Your task to perform on an android device: turn off notifications settings in the gmail app Image 0: 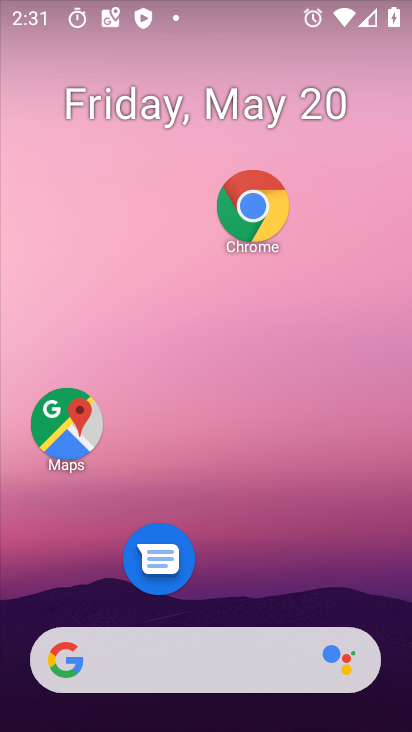
Step 0: drag from (260, 617) to (218, 43)
Your task to perform on an android device: turn off notifications settings in the gmail app Image 1: 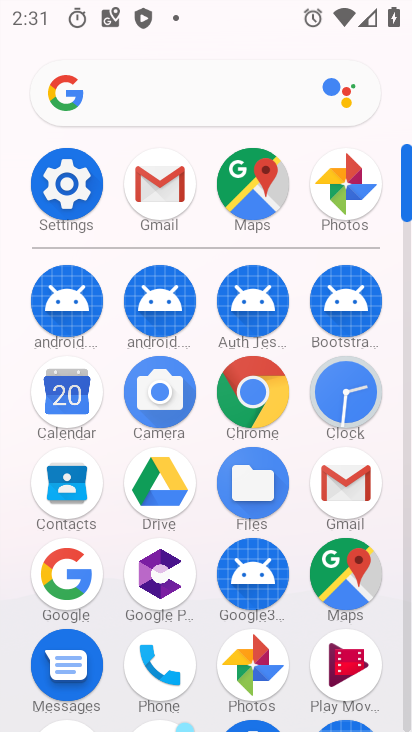
Step 1: click (353, 494)
Your task to perform on an android device: turn off notifications settings in the gmail app Image 2: 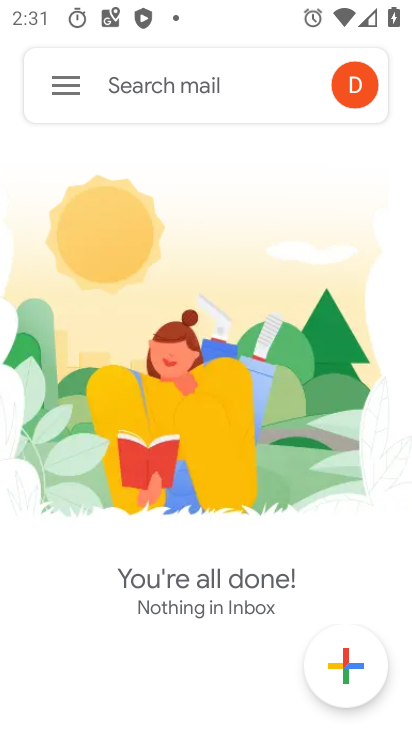
Step 2: click (52, 95)
Your task to perform on an android device: turn off notifications settings in the gmail app Image 3: 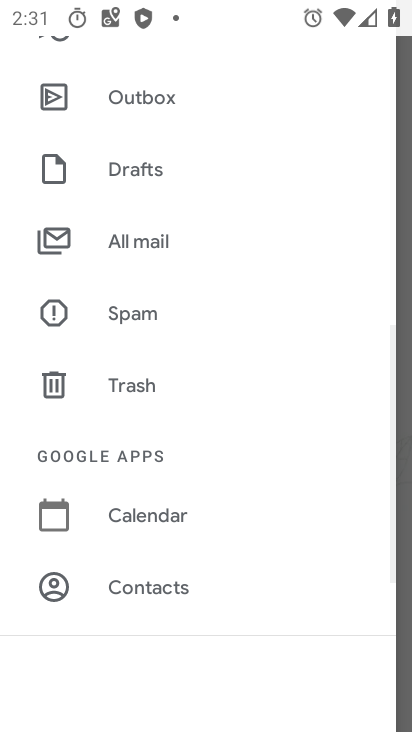
Step 3: drag from (191, 567) to (148, 188)
Your task to perform on an android device: turn off notifications settings in the gmail app Image 4: 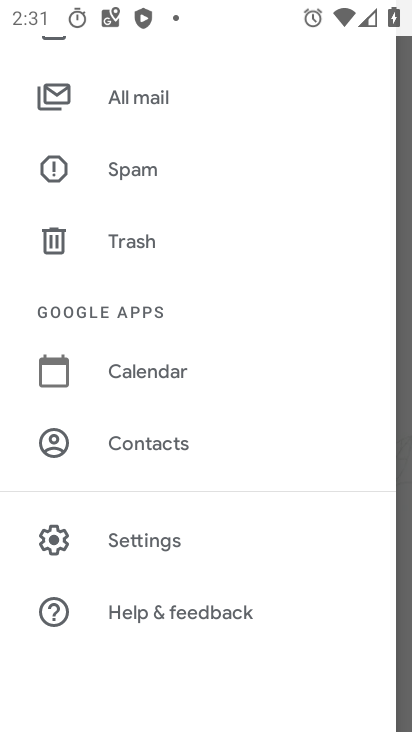
Step 4: click (131, 558)
Your task to perform on an android device: turn off notifications settings in the gmail app Image 5: 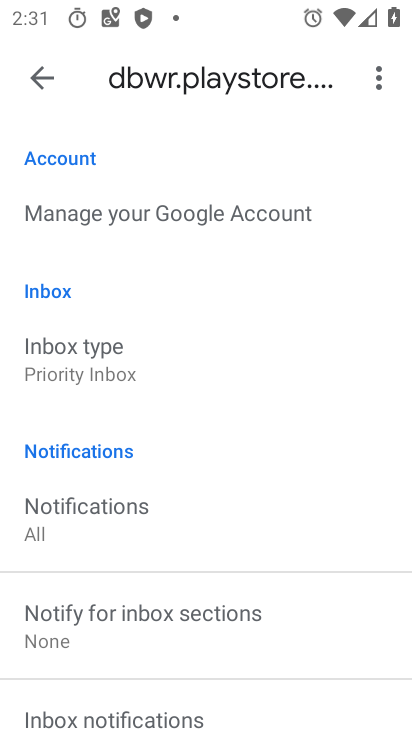
Step 5: click (25, 65)
Your task to perform on an android device: turn off notifications settings in the gmail app Image 6: 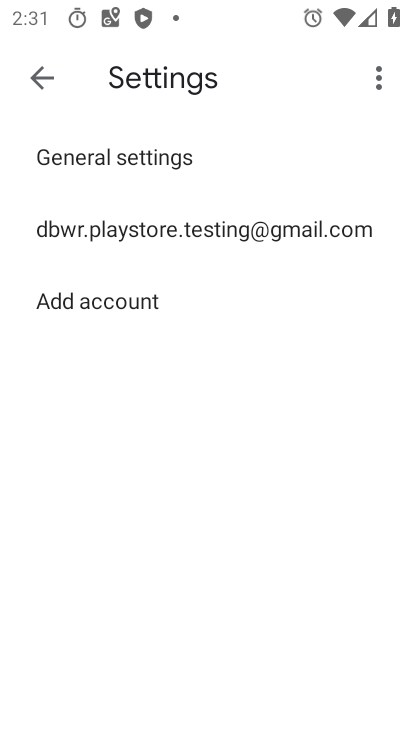
Step 6: click (111, 159)
Your task to perform on an android device: turn off notifications settings in the gmail app Image 7: 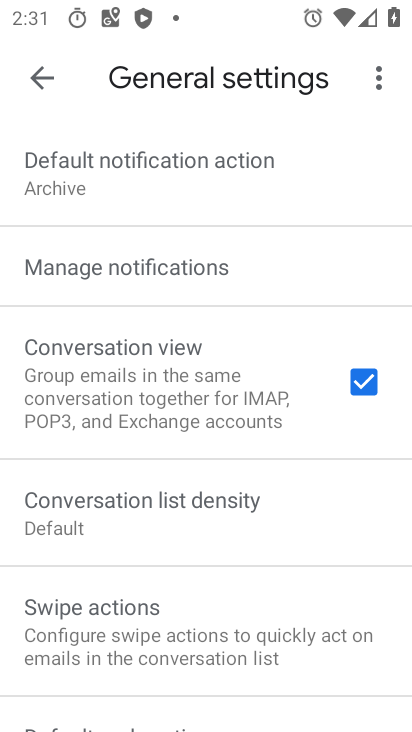
Step 7: click (104, 288)
Your task to perform on an android device: turn off notifications settings in the gmail app Image 8: 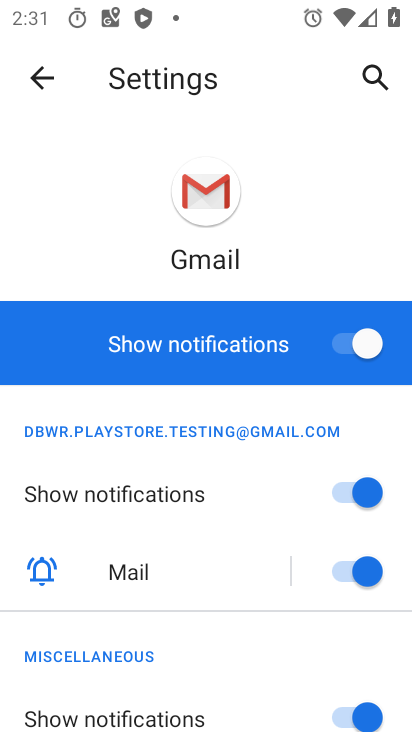
Step 8: click (347, 351)
Your task to perform on an android device: turn off notifications settings in the gmail app Image 9: 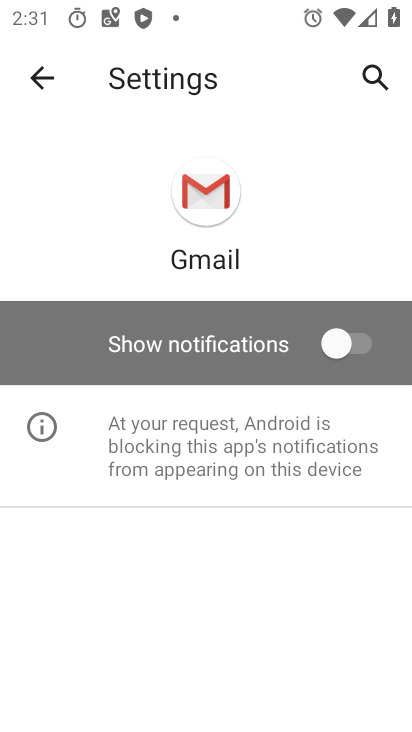
Step 9: task complete